Your task to perform on an android device: turn off improve location accuracy Image 0: 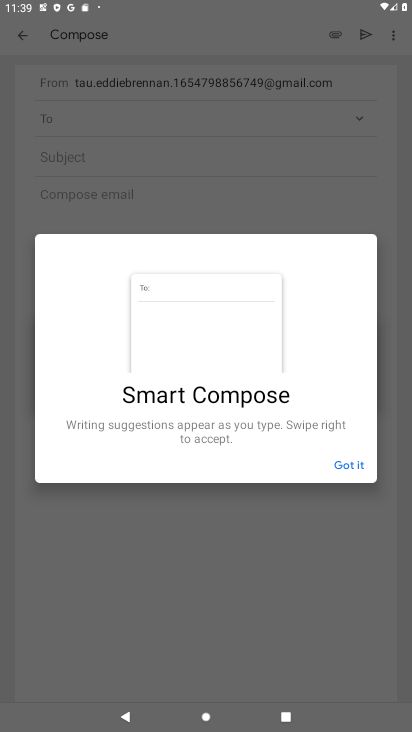
Step 0: press home button
Your task to perform on an android device: turn off improve location accuracy Image 1: 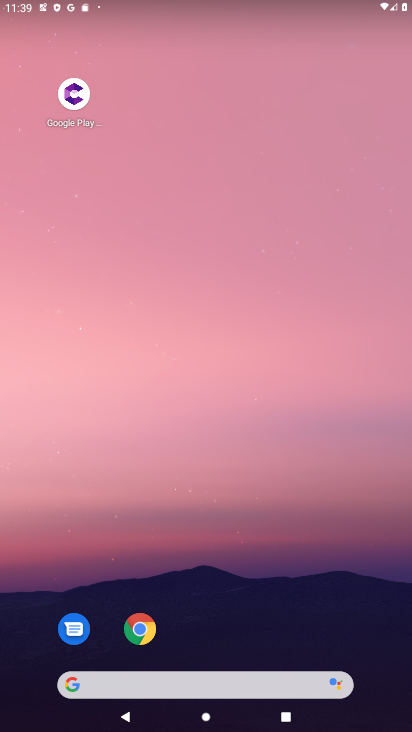
Step 1: drag from (340, 619) to (256, 177)
Your task to perform on an android device: turn off improve location accuracy Image 2: 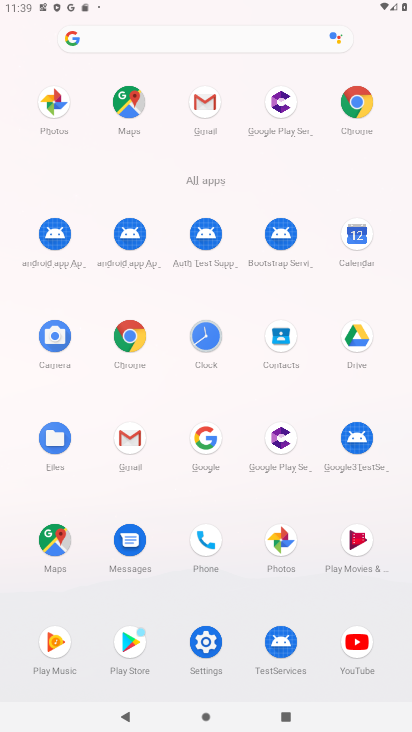
Step 2: click (207, 639)
Your task to perform on an android device: turn off improve location accuracy Image 3: 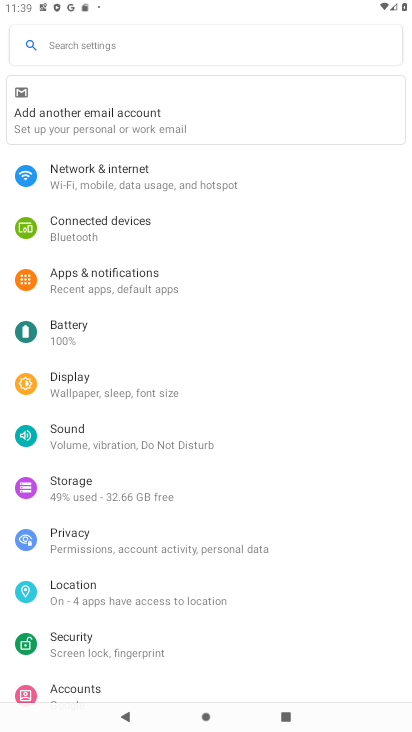
Step 3: click (151, 610)
Your task to perform on an android device: turn off improve location accuracy Image 4: 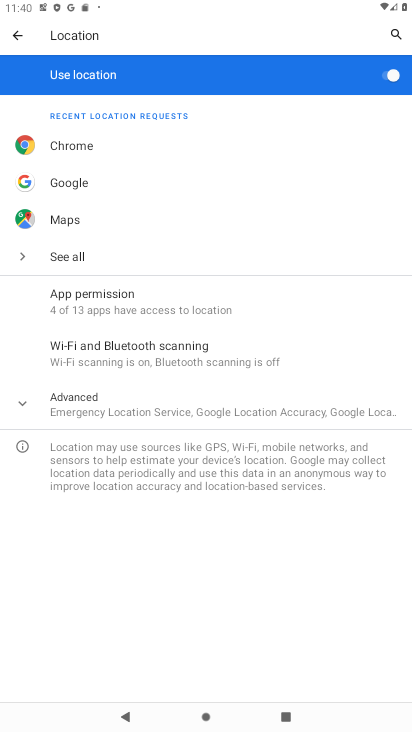
Step 4: click (96, 400)
Your task to perform on an android device: turn off improve location accuracy Image 5: 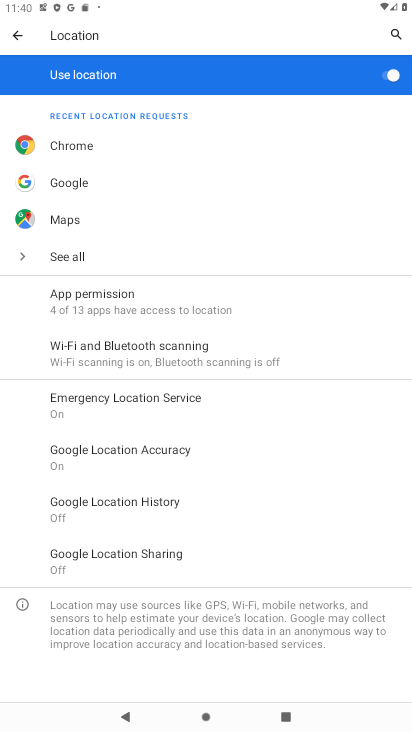
Step 5: click (139, 451)
Your task to perform on an android device: turn off improve location accuracy Image 6: 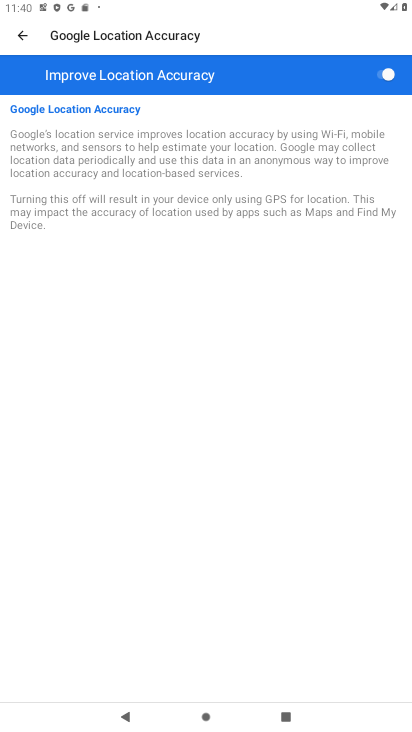
Step 6: click (365, 76)
Your task to perform on an android device: turn off improve location accuracy Image 7: 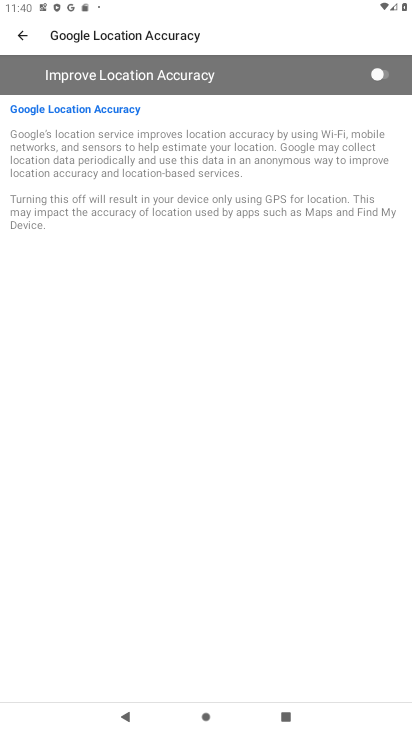
Step 7: task complete